Your task to perform on an android device: What is the capital of Germany? Image 0: 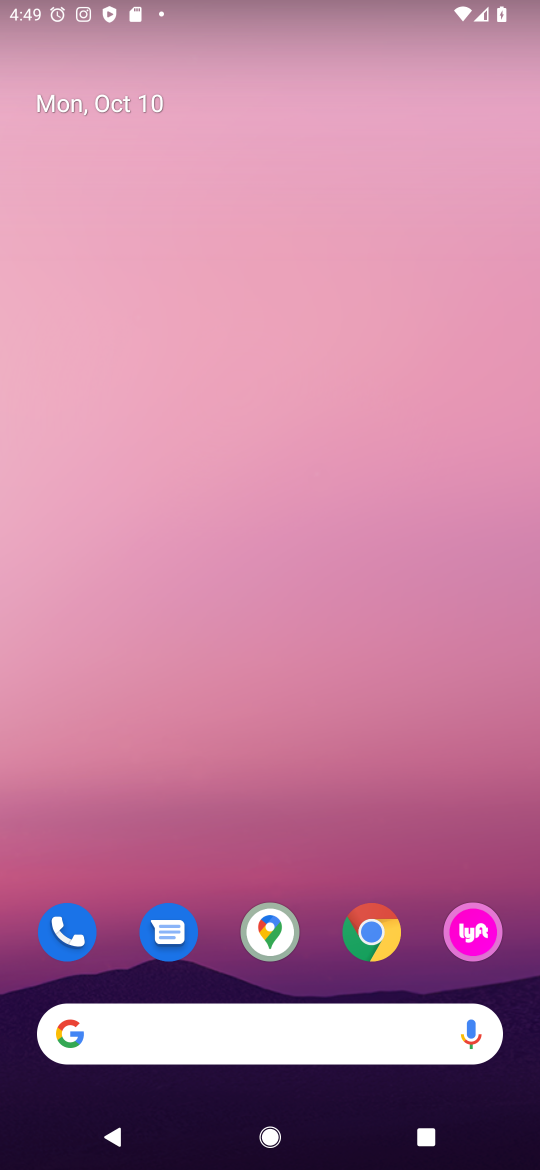
Step 0: press home button
Your task to perform on an android device: What is the capital of Germany? Image 1: 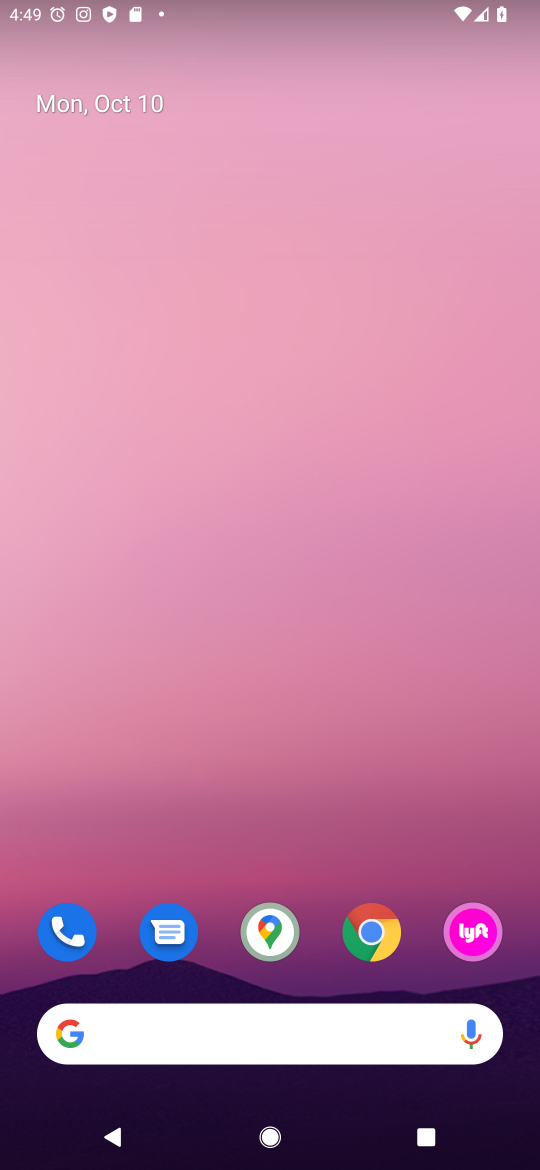
Step 1: click (266, 1034)
Your task to perform on an android device: What is the capital of Germany? Image 2: 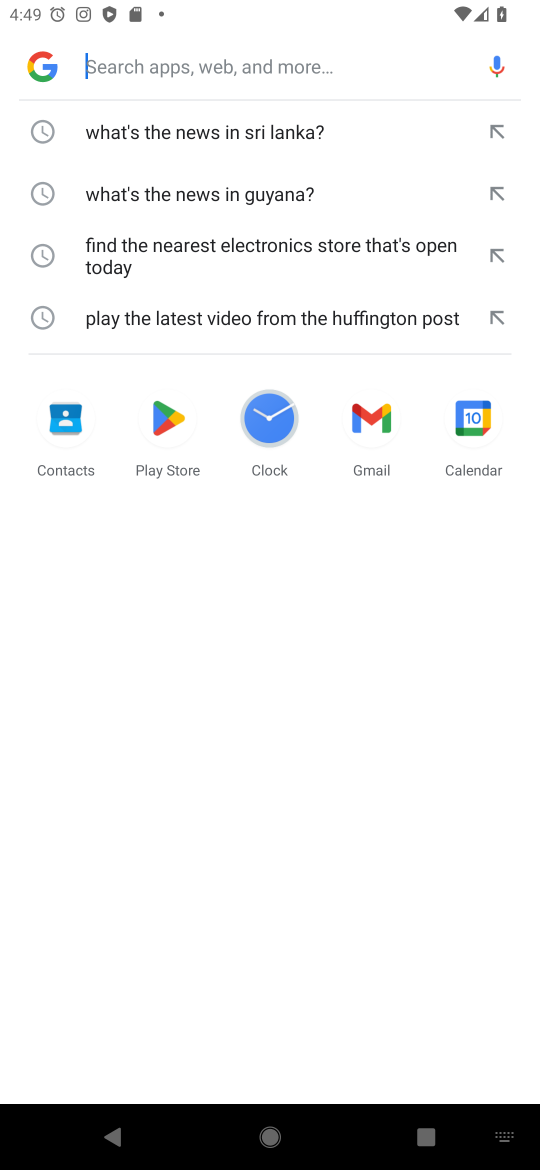
Step 2: type "What is the capital of Germany"
Your task to perform on an android device: What is the capital of Germany? Image 3: 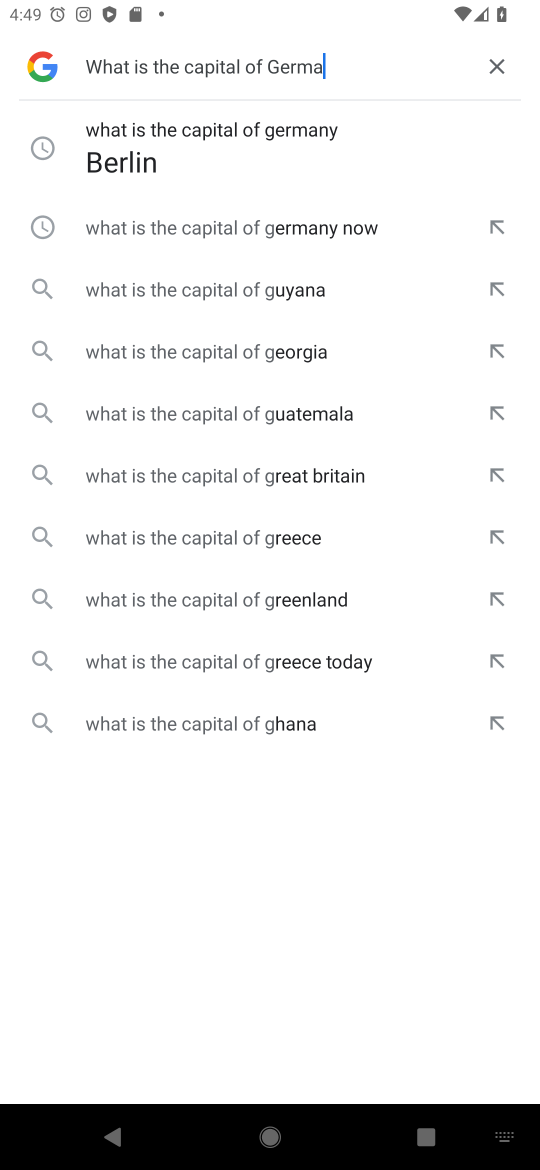
Step 3: press enter
Your task to perform on an android device: What is the capital of Germany? Image 4: 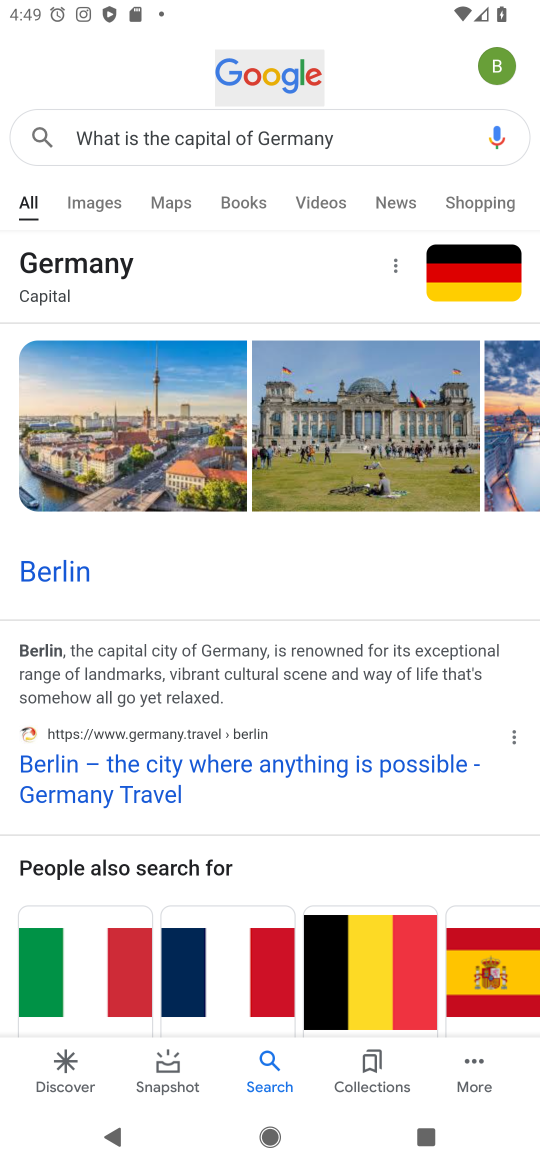
Step 4: task complete